Your task to perform on an android device: clear all cookies in the chrome app Image 0: 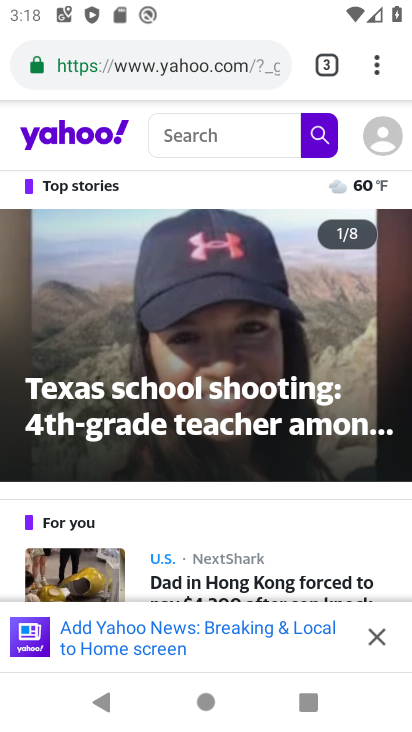
Step 0: drag from (372, 60) to (132, 362)
Your task to perform on an android device: clear all cookies in the chrome app Image 1: 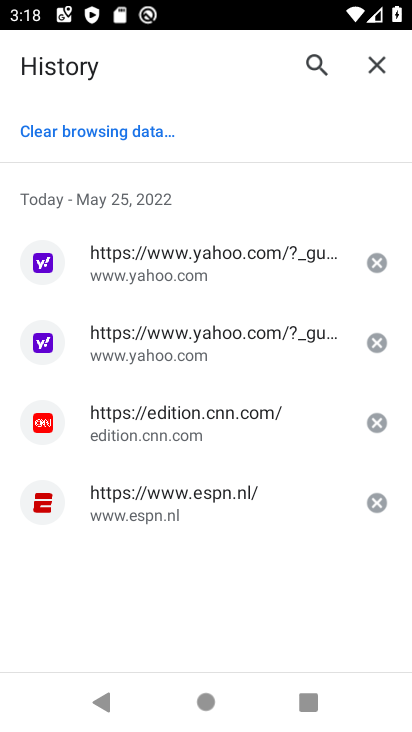
Step 1: click (74, 118)
Your task to perform on an android device: clear all cookies in the chrome app Image 2: 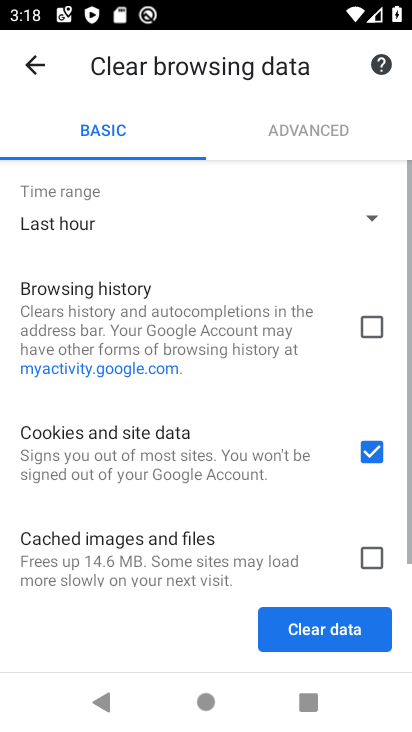
Step 2: click (342, 631)
Your task to perform on an android device: clear all cookies in the chrome app Image 3: 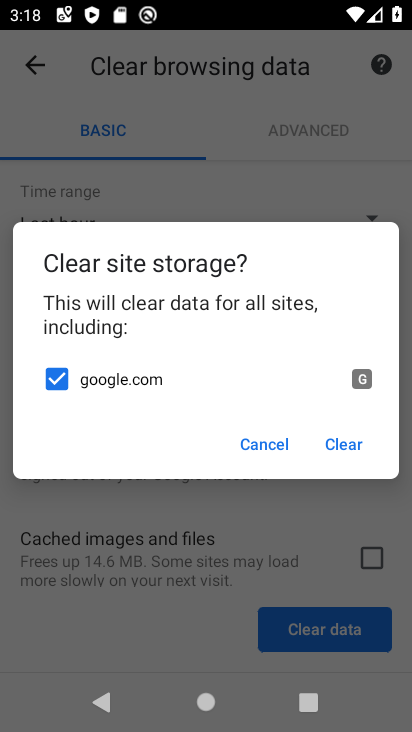
Step 3: click (338, 436)
Your task to perform on an android device: clear all cookies in the chrome app Image 4: 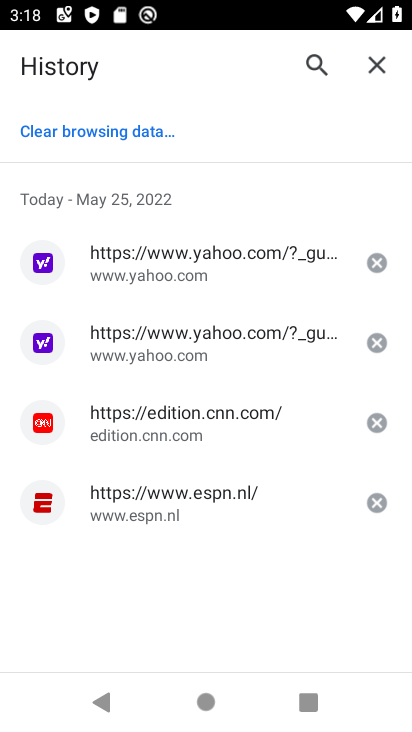
Step 4: task complete